Your task to perform on an android device: find which apps use the phone's location Image 0: 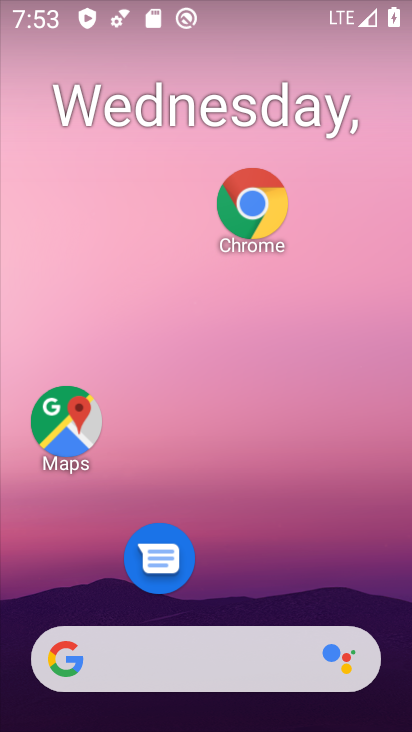
Step 0: press home button
Your task to perform on an android device: find which apps use the phone's location Image 1: 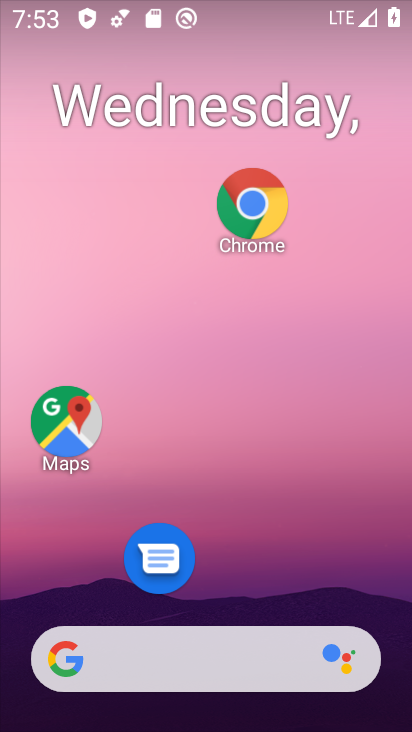
Step 1: drag from (229, 594) to (227, 129)
Your task to perform on an android device: find which apps use the phone's location Image 2: 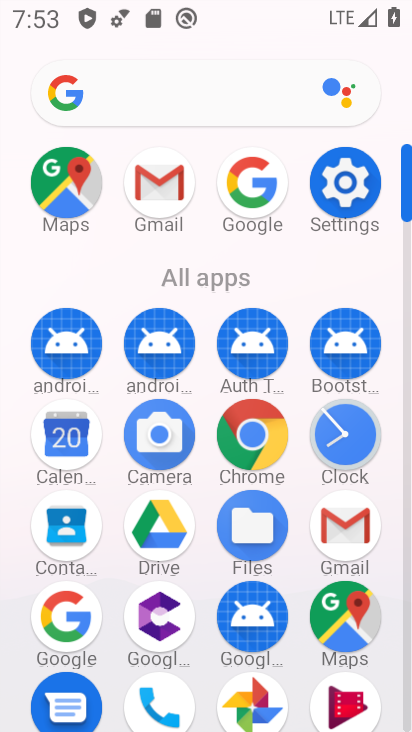
Step 2: click (353, 185)
Your task to perform on an android device: find which apps use the phone's location Image 3: 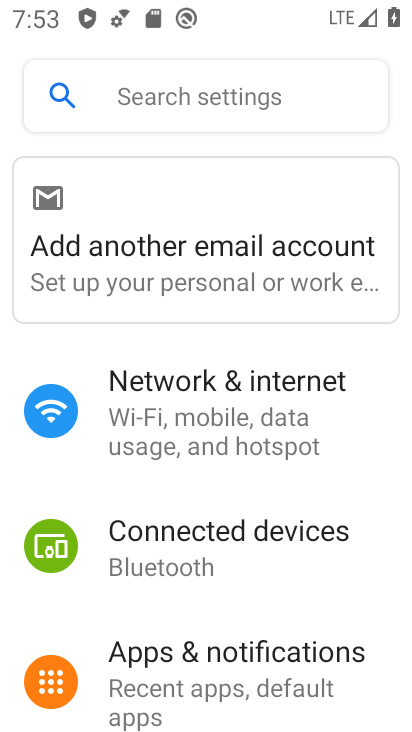
Step 3: drag from (232, 677) to (257, 102)
Your task to perform on an android device: find which apps use the phone's location Image 4: 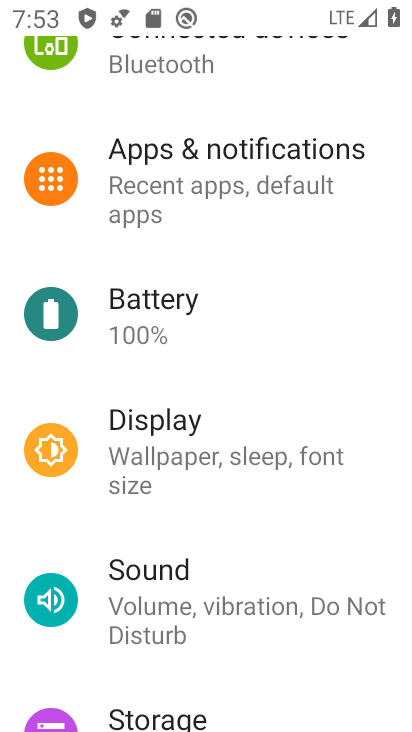
Step 4: drag from (202, 673) to (239, 143)
Your task to perform on an android device: find which apps use the phone's location Image 5: 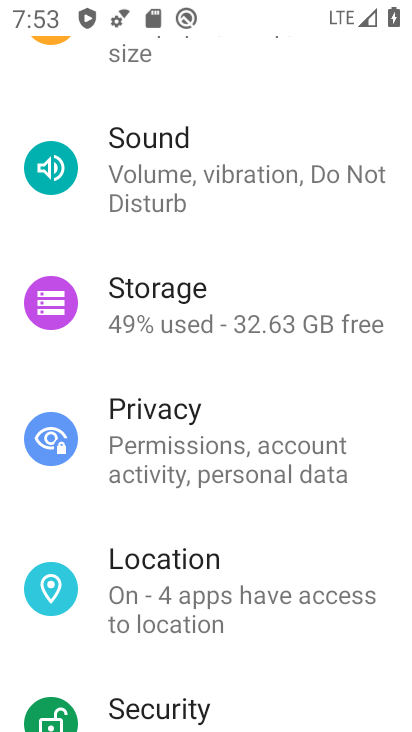
Step 5: click (204, 574)
Your task to perform on an android device: find which apps use the phone's location Image 6: 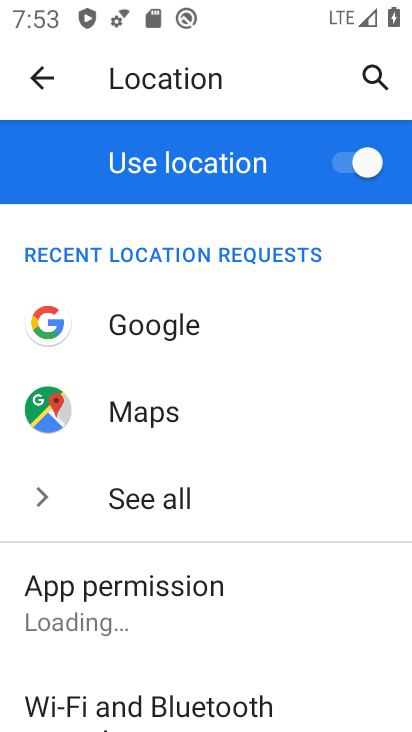
Step 6: drag from (235, 633) to (268, 266)
Your task to perform on an android device: find which apps use the phone's location Image 7: 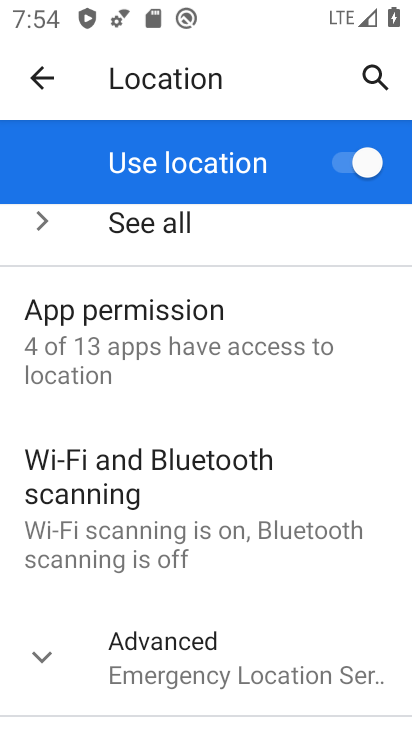
Step 7: click (177, 333)
Your task to perform on an android device: find which apps use the phone's location Image 8: 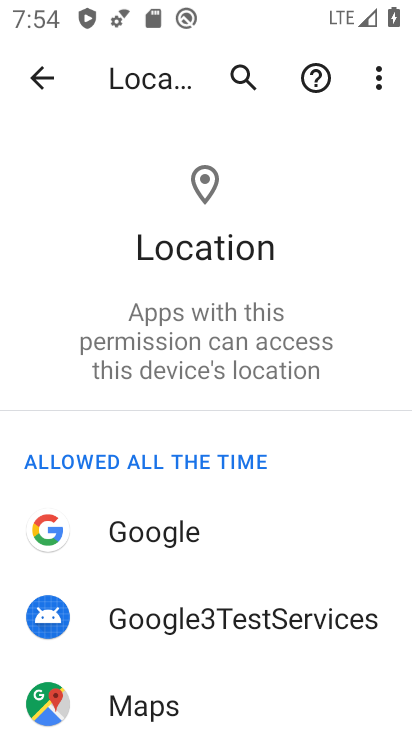
Step 8: task complete